Your task to perform on an android device: What's the weather today? Image 0: 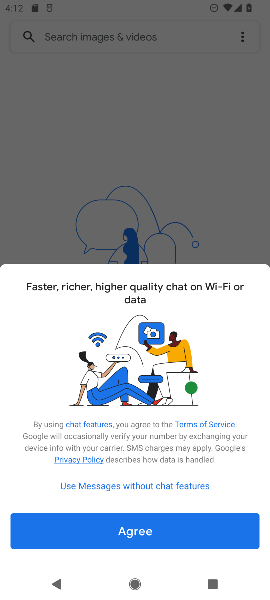
Step 0: press home button
Your task to perform on an android device: What's the weather today? Image 1: 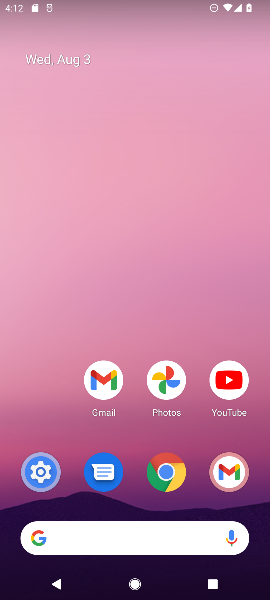
Step 1: drag from (258, 494) to (122, 40)
Your task to perform on an android device: What's the weather today? Image 2: 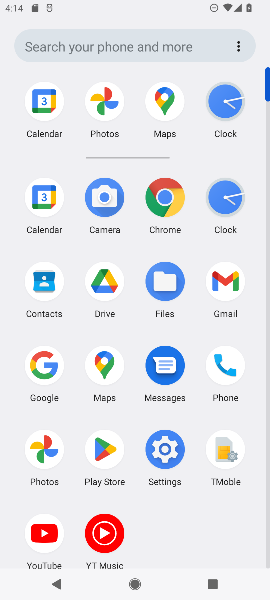
Step 2: click (48, 366)
Your task to perform on an android device: What's the weather today? Image 3: 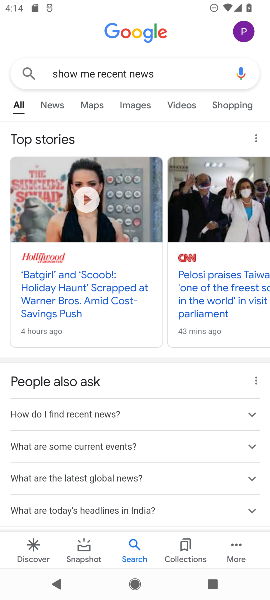
Step 3: press back button
Your task to perform on an android device: What's the weather today? Image 4: 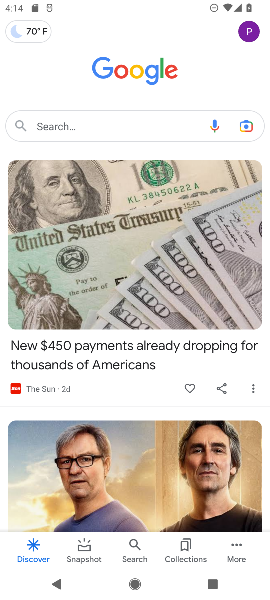
Step 4: click (55, 123)
Your task to perform on an android device: What's the weather today? Image 5: 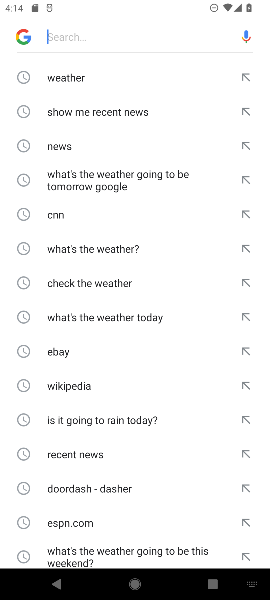
Step 5: type "What's the weather today?"
Your task to perform on an android device: What's the weather today? Image 6: 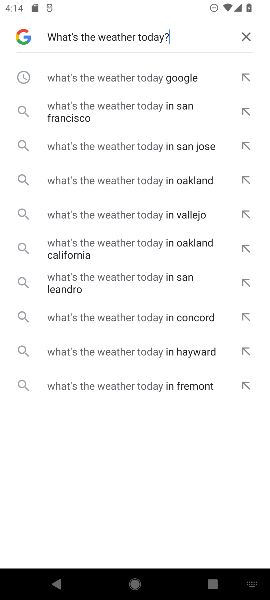
Step 6: click (91, 81)
Your task to perform on an android device: What's the weather today? Image 7: 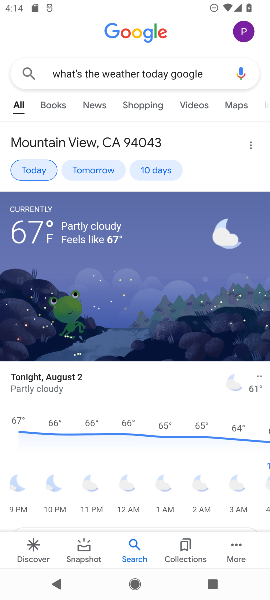
Step 7: task complete